Your task to perform on an android device: allow cookies in the chrome app Image 0: 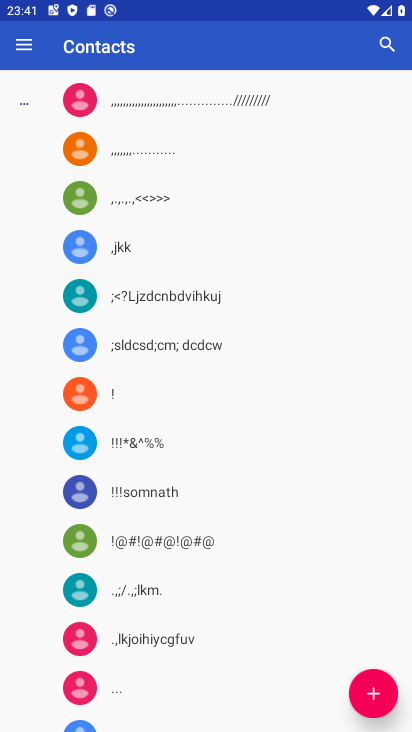
Step 0: press home button
Your task to perform on an android device: allow cookies in the chrome app Image 1: 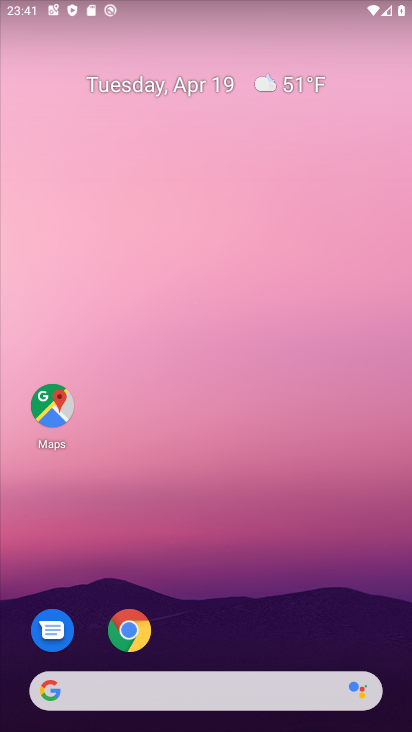
Step 1: drag from (269, 529) to (206, 93)
Your task to perform on an android device: allow cookies in the chrome app Image 2: 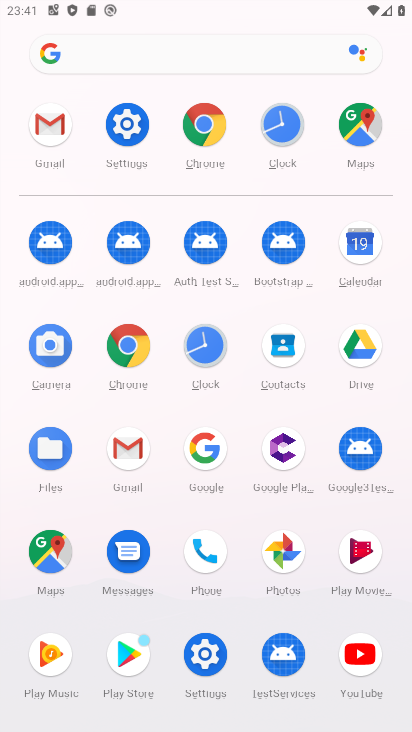
Step 2: click (197, 120)
Your task to perform on an android device: allow cookies in the chrome app Image 3: 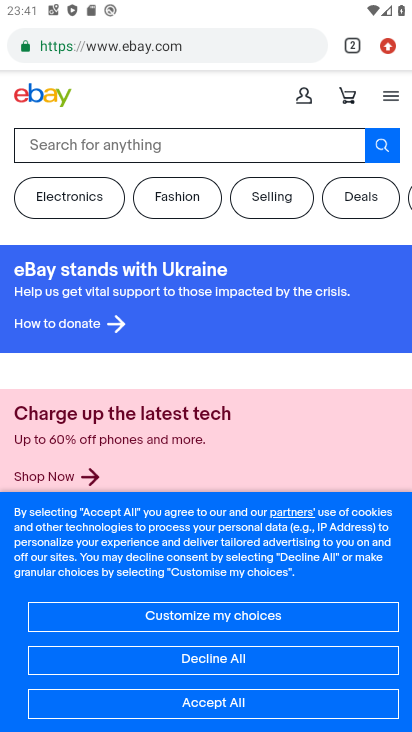
Step 3: drag from (389, 61) to (296, 596)
Your task to perform on an android device: allow cookies in the chrome app Image 4: 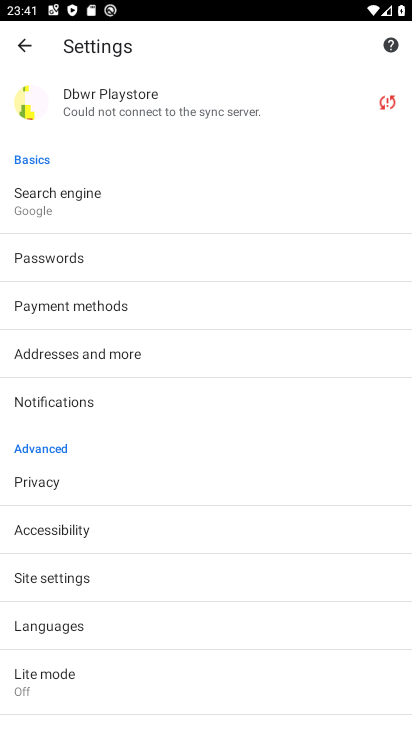
Step 4: click (203, 579)
Your task to perform on an android device: allow cookies in the chrome app Image 5: 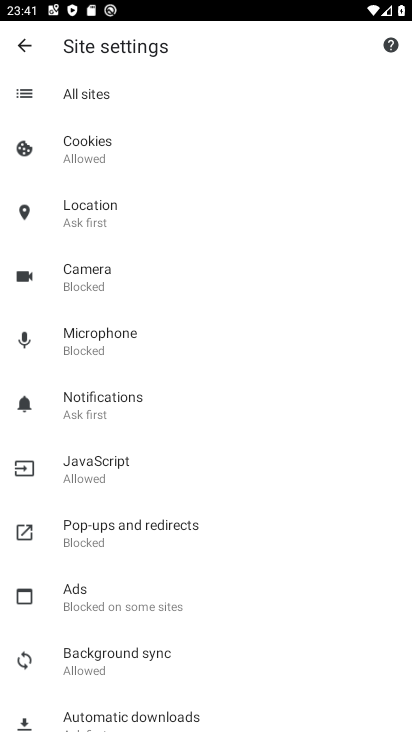
Step 5: click (249, 137)
Your task to perform on an android device: allow cookies in the chrome app Image 6: 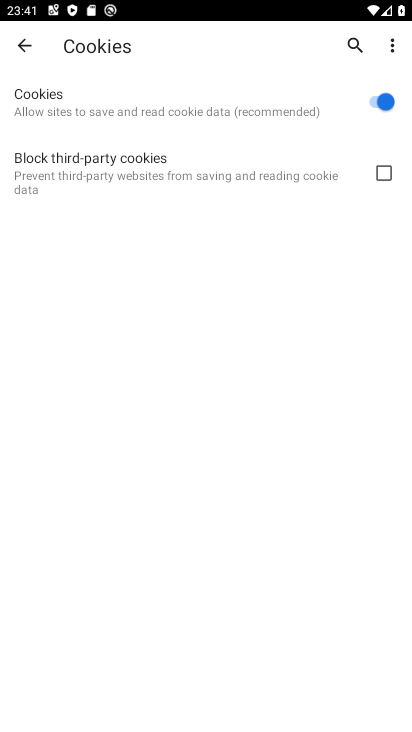
Step 6: task complete